Your task to perform on an android device: Show me productivity apps on the Play Store Image 0: 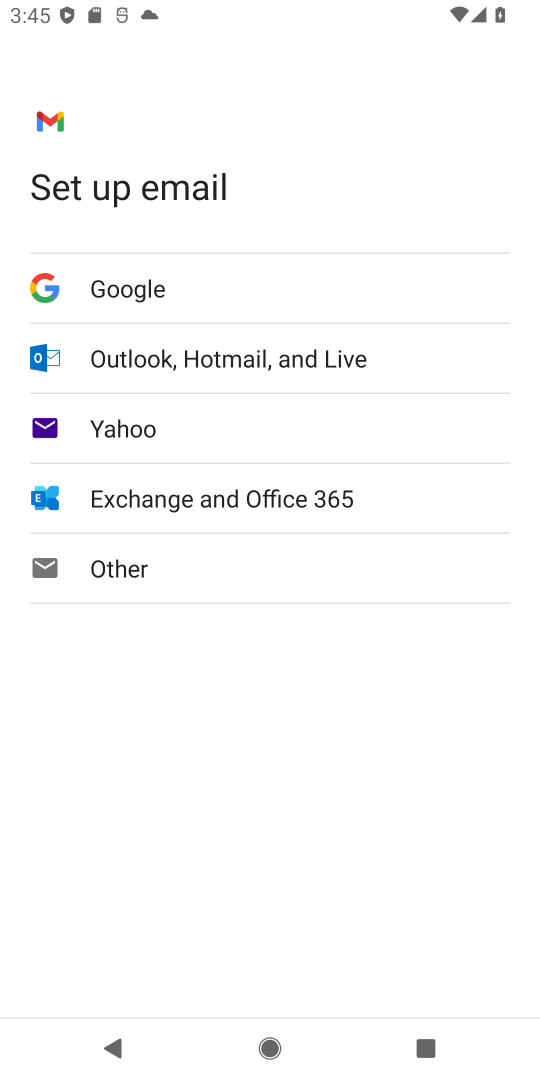
Step 0: press home button
Your task to perform on an android device: Show me productivity apps on the Play Store Image 1: 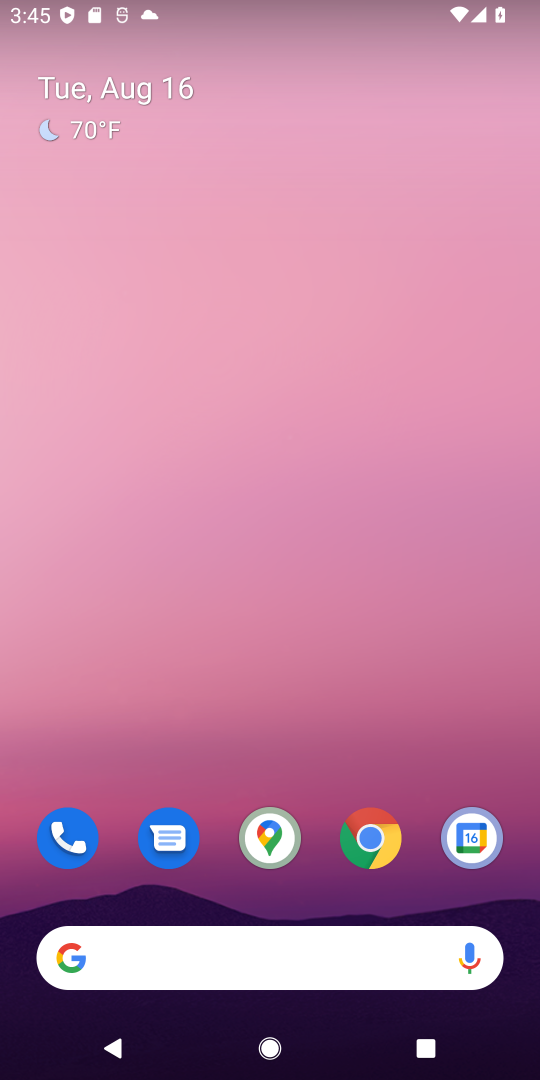
Step 1: drag from (282, 944) to (306, 401)
Your task to perform on an android device: Show me productivity apps on the Play Store Image 2: 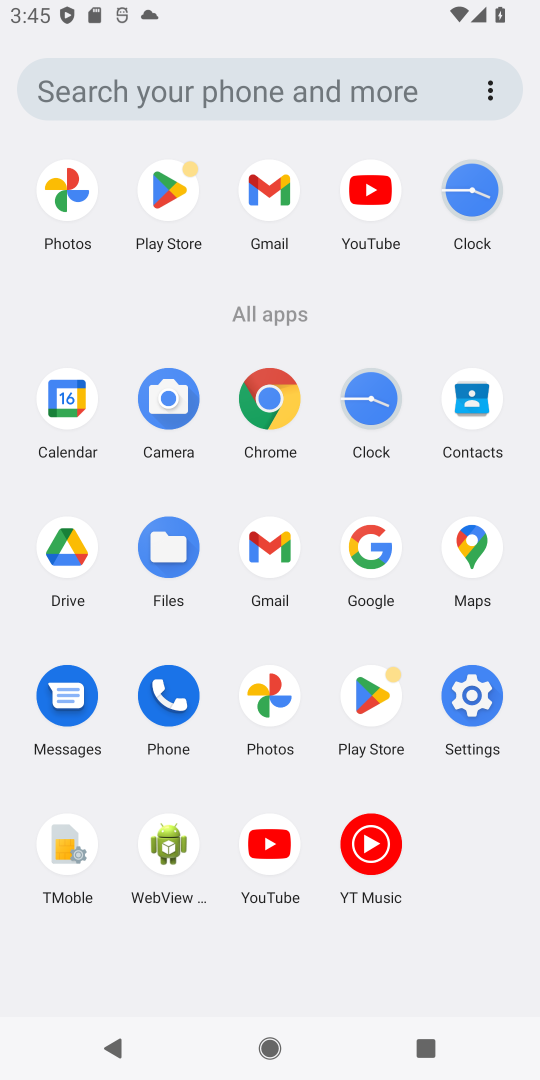
Step 2: click (349, 706)
Your task to perform on an android device: Show me productivity apps on the Play Store Image 3: 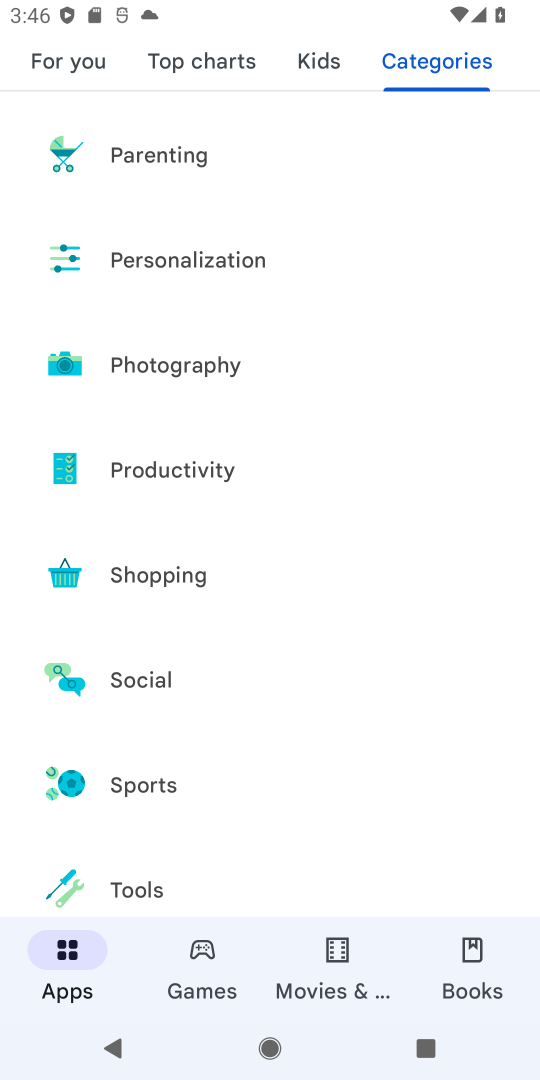
Step 3: click (161, 457)
Your task to perform on an android device: Show me productivity apps on the Play Store Image 4: 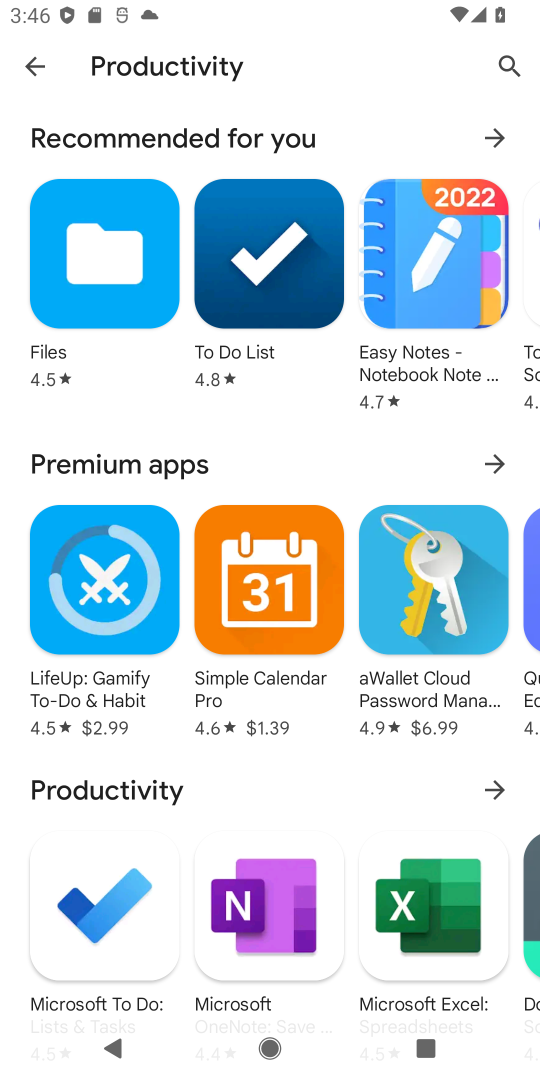
Step 4: task complete